Your task to perform on an android device: change notifications settings Image 0: 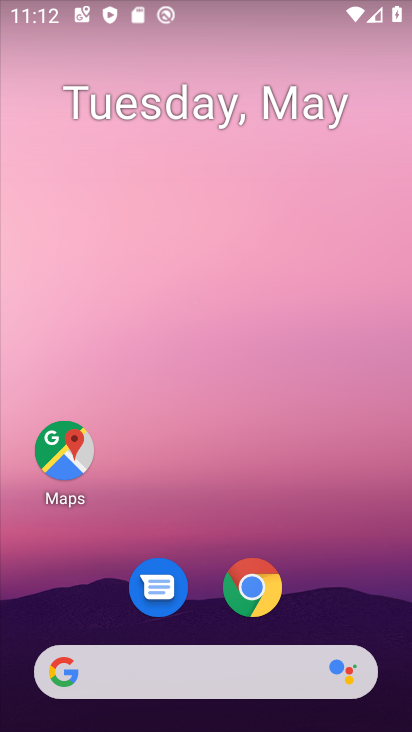
Step 0: drag from (347, 561) to (259, 47)
Your task to perform on an android device: change notifications settings Image 1: 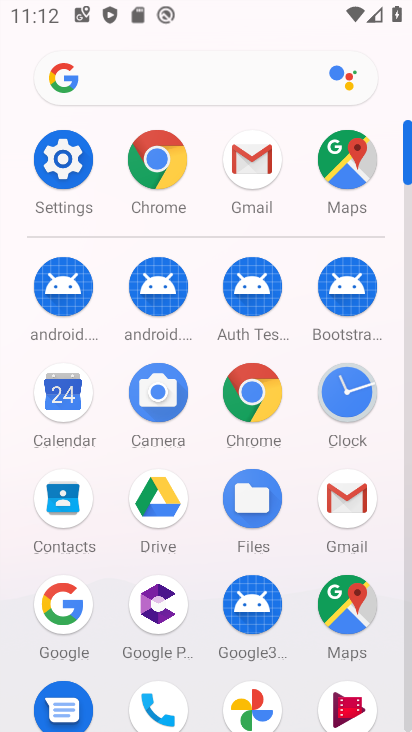
Step 1: drag from (9, 540) to (5, 264)
Your task to perform on an android device: change notifications settings Image 2: 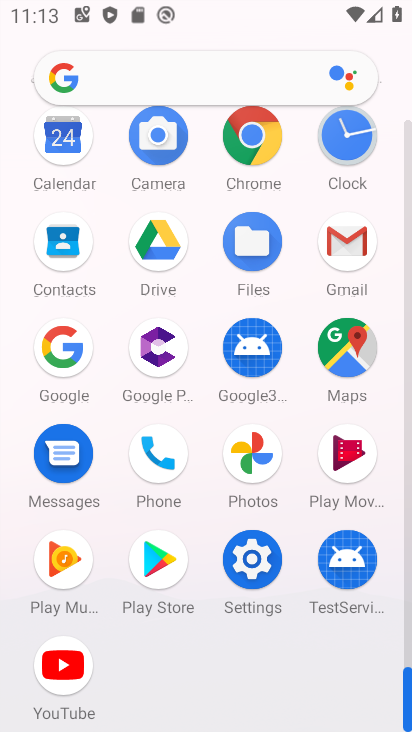
Step 2: click (249, 560)
Your task to perform on an android device: change notifications settings Image 3: 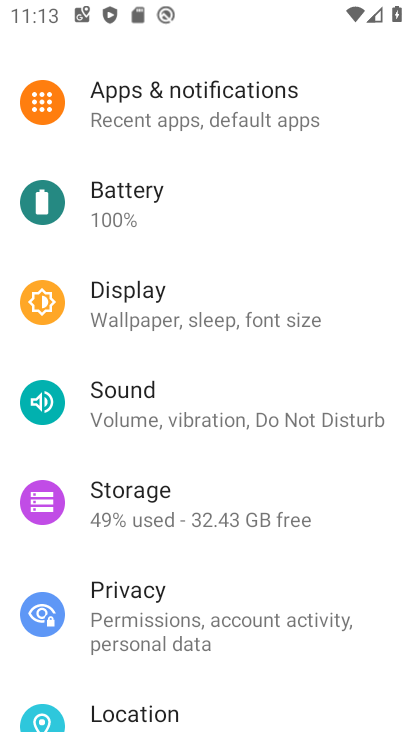
Step 3: drag from (265, 149) to (268, 620)
Your task to perform on an android device: change notifications settings Image 4: 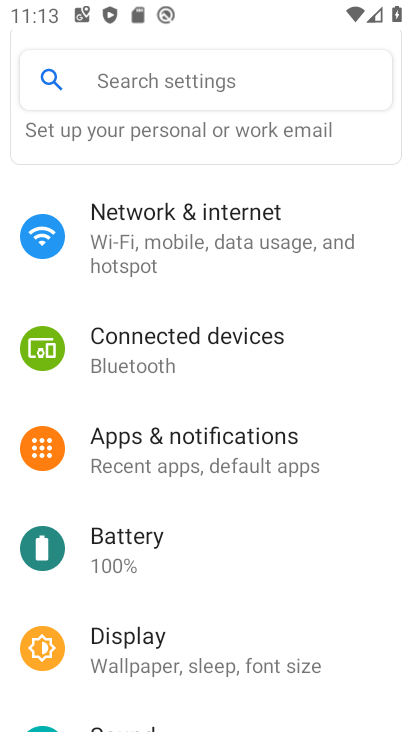
Step 4: click (219, 436)
Your task to perform on an android device: change notifications settings Image 5: 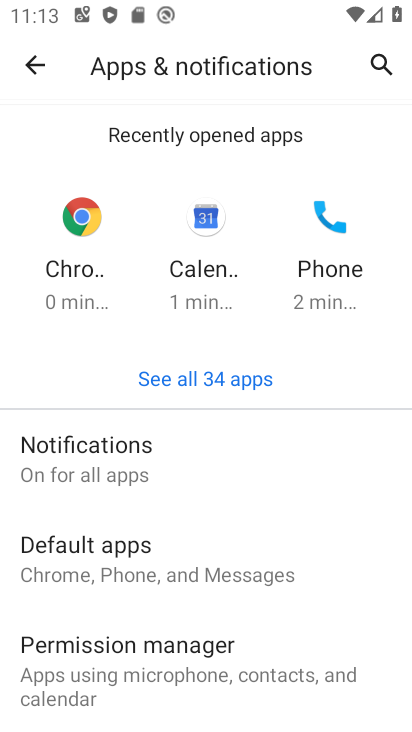
Step 5: click (219, 463)
Your task to perform on an android device: change notifications settings Image 6: 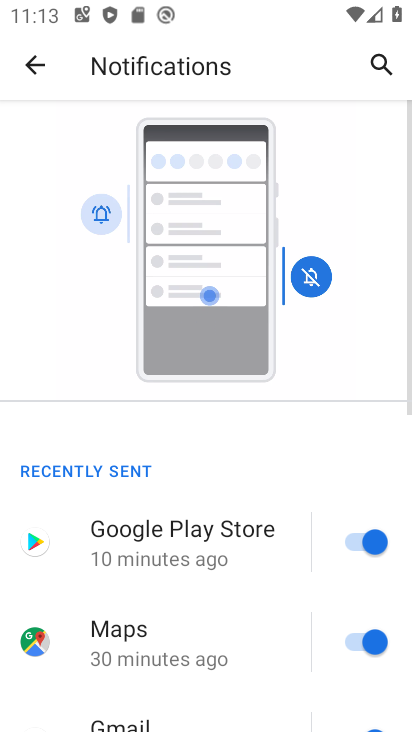
Step 6: drag from (238, 631) to (246, 189)
Your task to perform on an android device: change notifications settings Image 7: 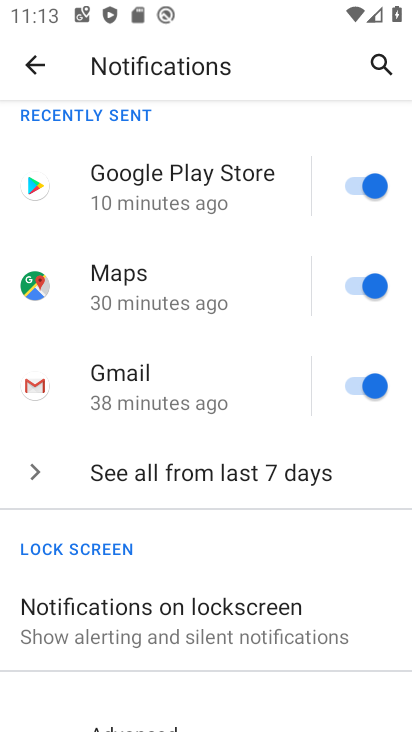
Step 7: drag from (238, 603) to (271, 150)
Your task to perform on an android device: change notifications settings Image 8: 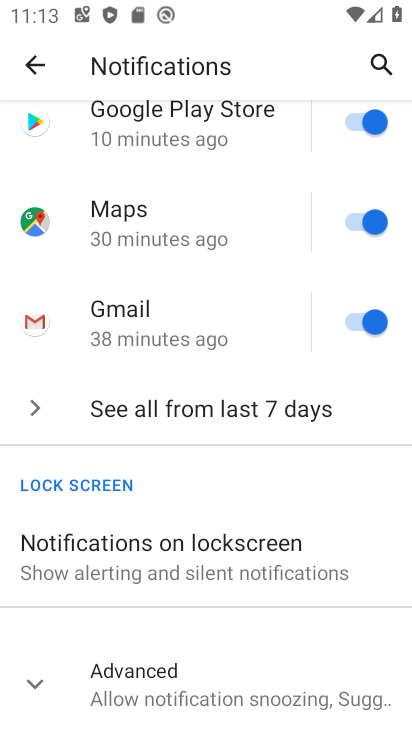
Step 8: drag from (210, 671) to (207, 367)
Your task to perform on an android device: change notifications settings Image 9: 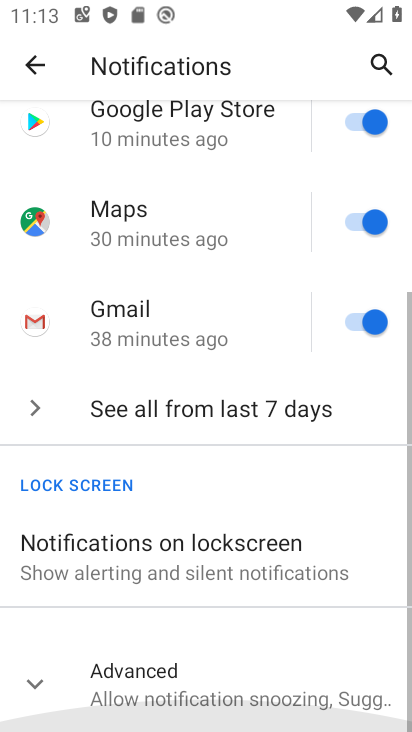
Step 9: click (26, 682)
Your task to perform on an android device: change notifications settings Image 10: 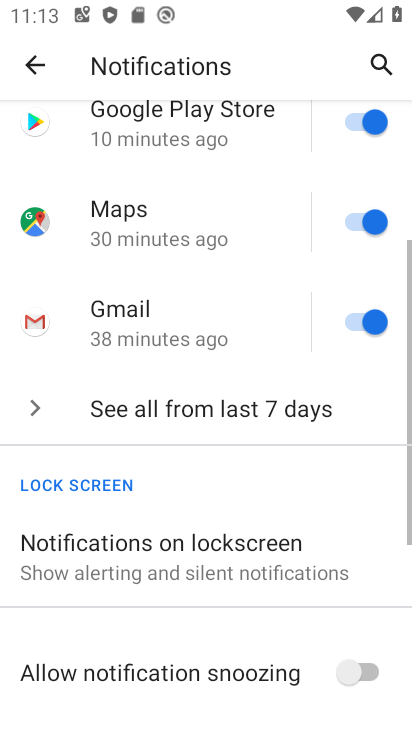
Step 10: task complete